Your task to perform on an android device: Open Google Maps Image 0: 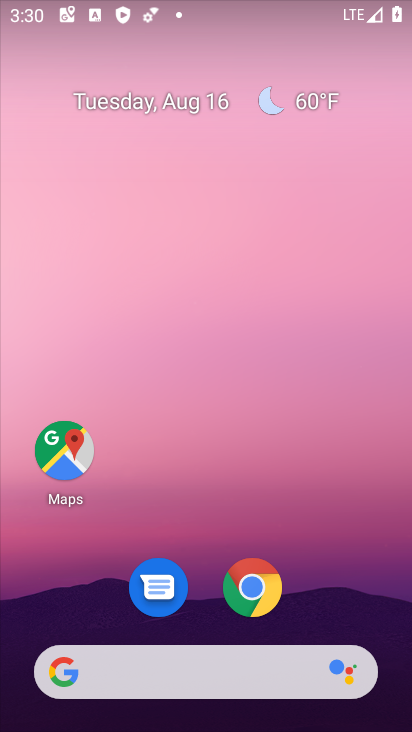
Step 0: click (70, 444)
Your task to perform on an android device: Open Google Maps Image 1: 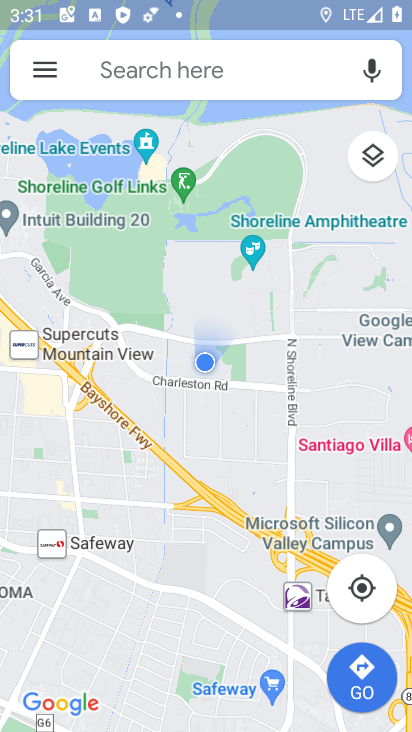
Step 1: task complete